Your task to perform on an android device: turn notification dots on Image 0: 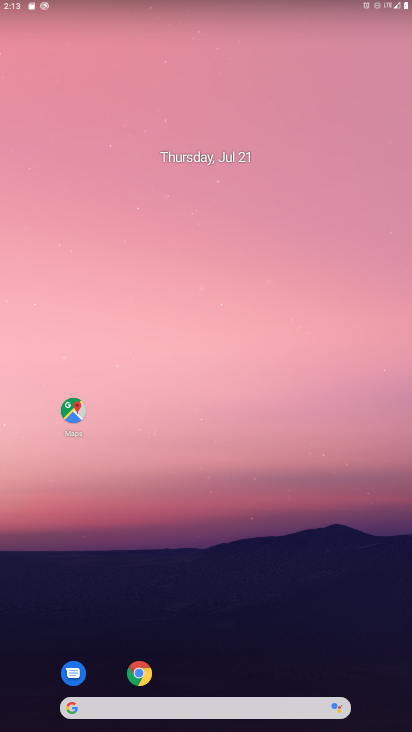
Step 0: drag from (264, 636) to (264, 145)
Your task to perform on an android device: turn notification dots on Image 1: 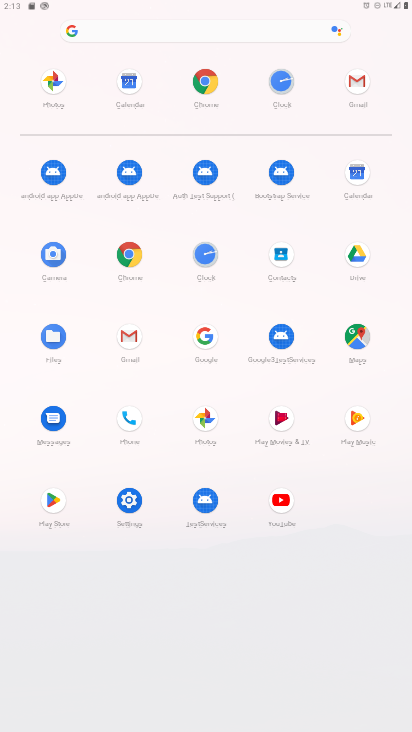
Step 1: click (126, 489)
Your task to perform on an android device: turn notification dots on Image 2: 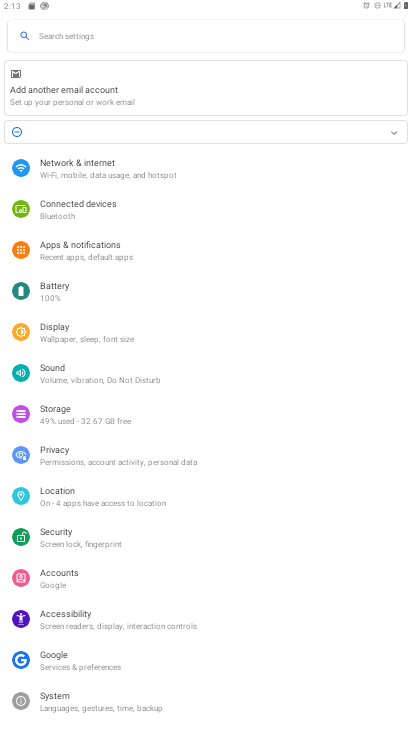
Step 2: click (143, 31)
Your task to perform on an android device: turn notification dots on Image 3: 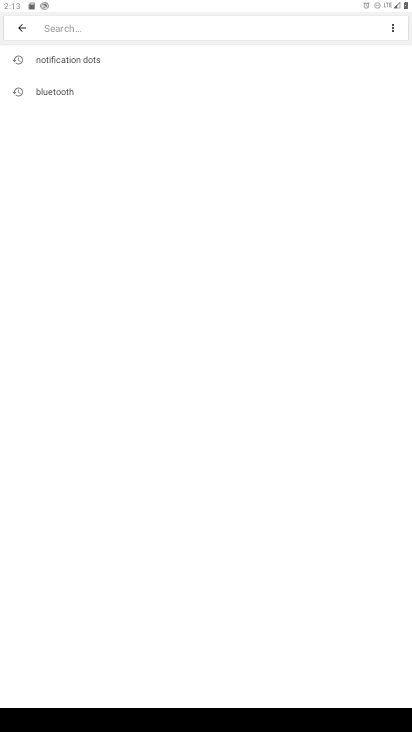
Step 3: click (120, 62)
Your task to perform on an android device: turn notification dots on Image 4: 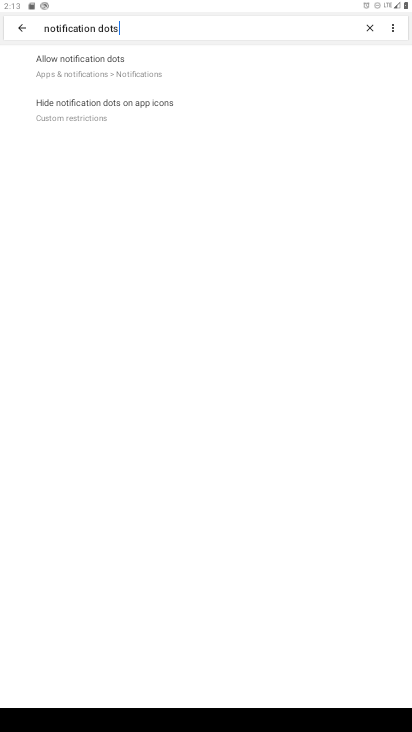
Step 4: click (97, 56)
Your task to perform on an android device: turn notification dots on Image 5: 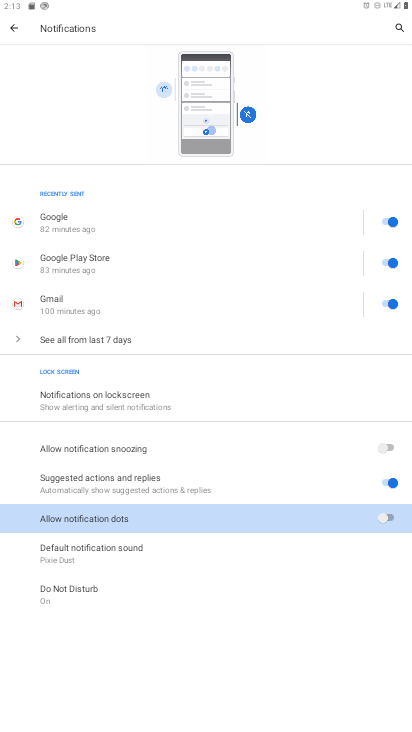
Step 5: click (382, 526)
Your task to perform on an android device: turn notification dots on Image 6: 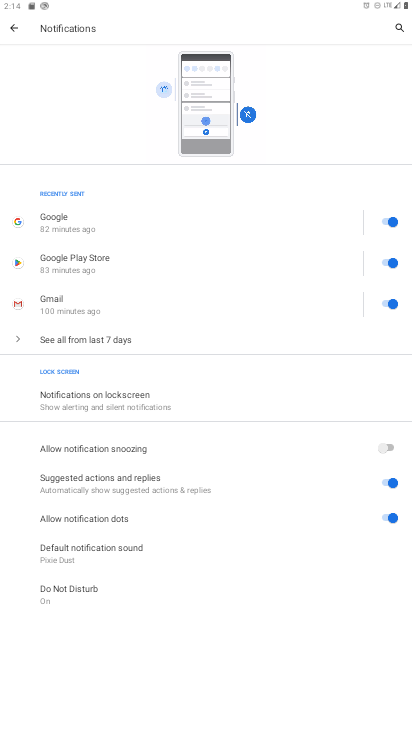
Step 6: task complete